Your task to perform on an android device: Search for a new water heater on Home Depot Image 0: 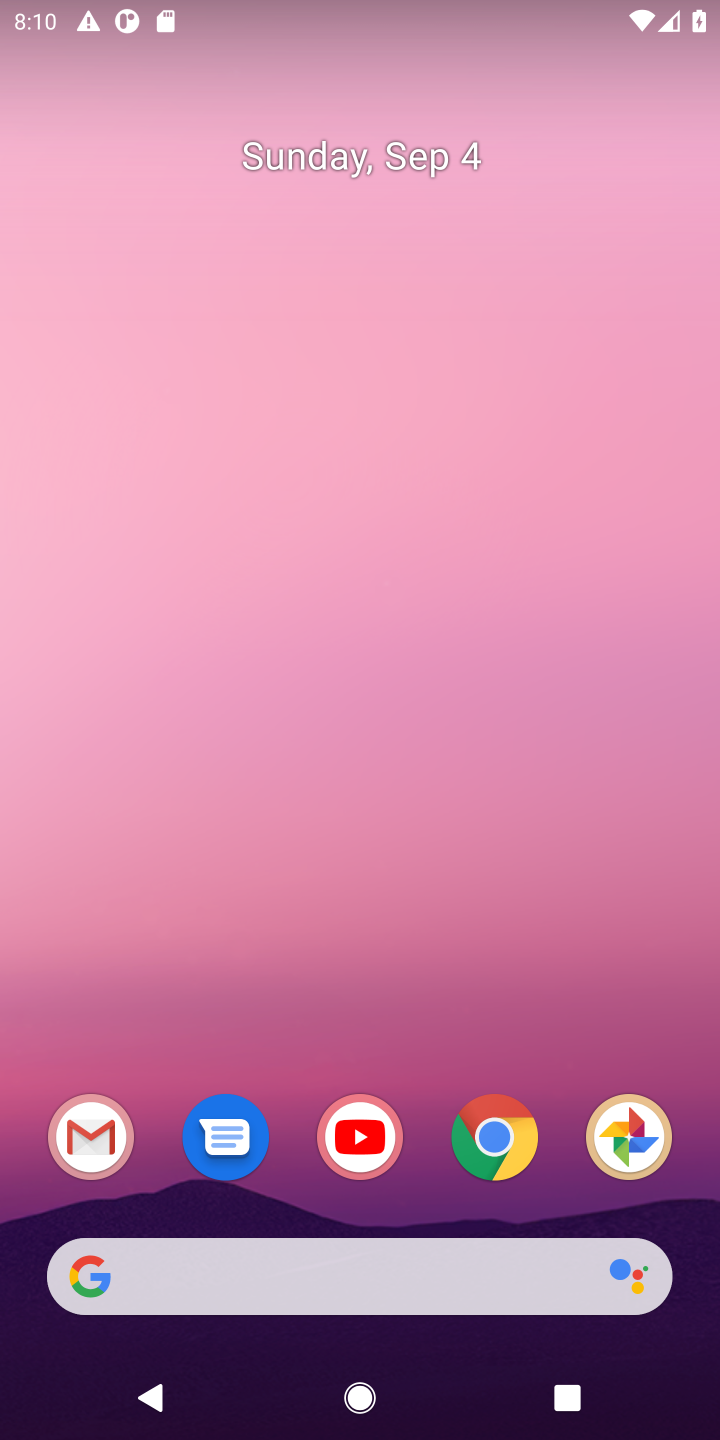
Step 0: click (495, 1138)
Your task to perform on an android device: Search for a new water heater on Home Depot Image 1: 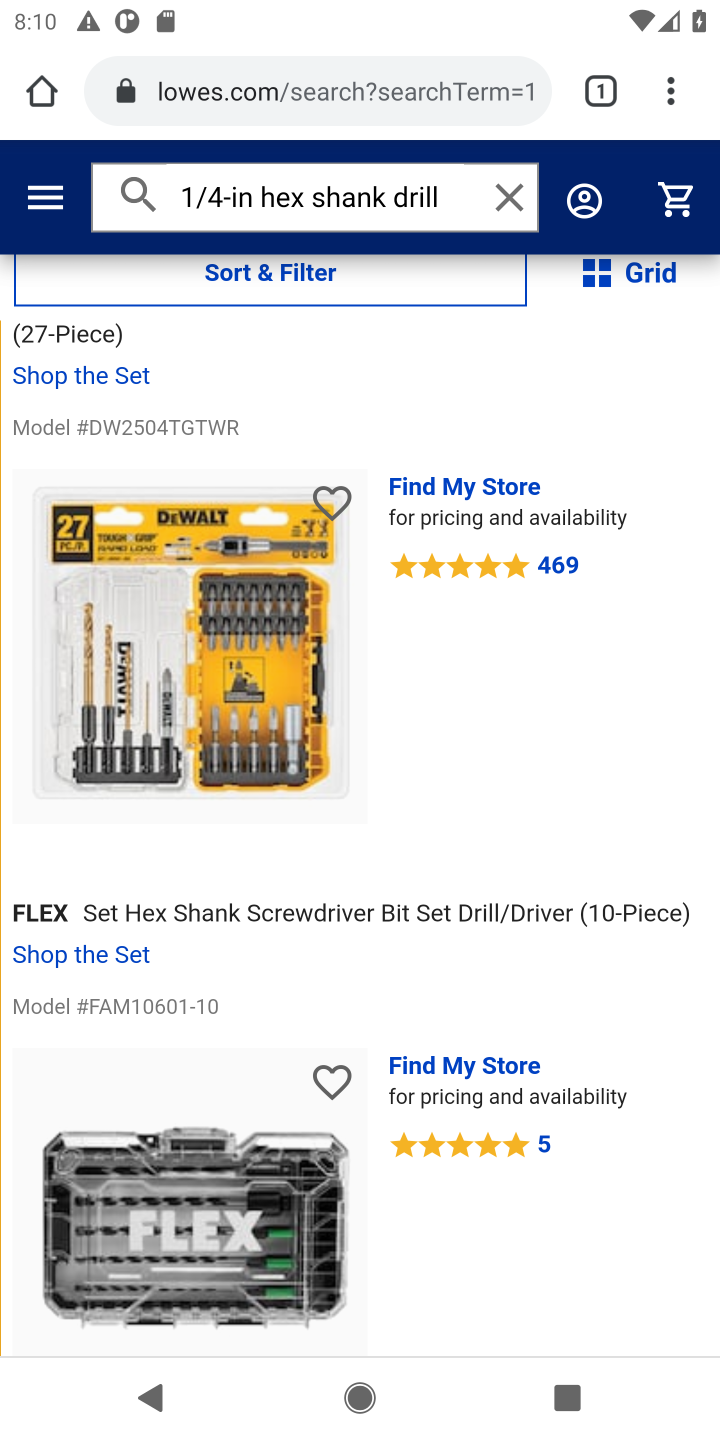
Step 1: click (371, 101)
Your task to perform on an android device: Search for a new water heater on Home Depot Image 2: 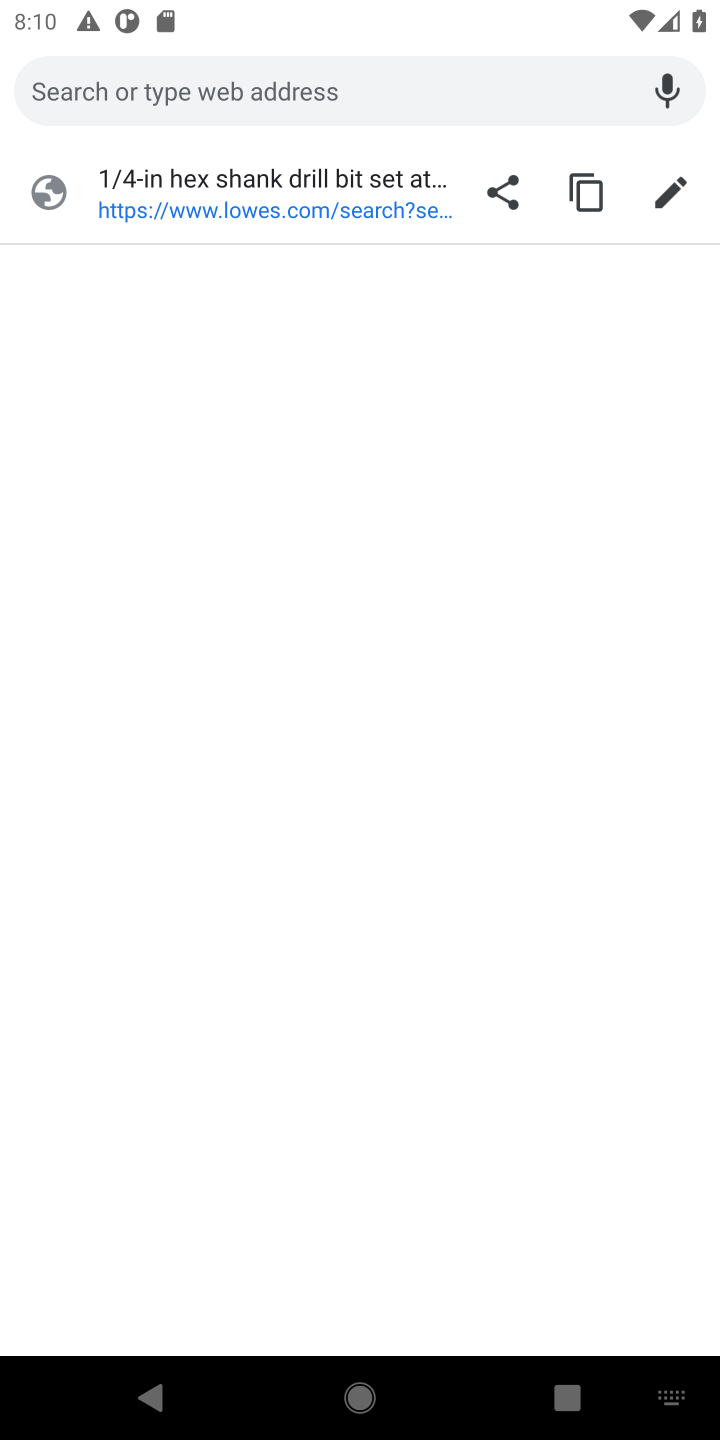
Step 2: type "Home Depot"
Your task to perform on an android device: Search for a new water heater on Home Depot Image 3: 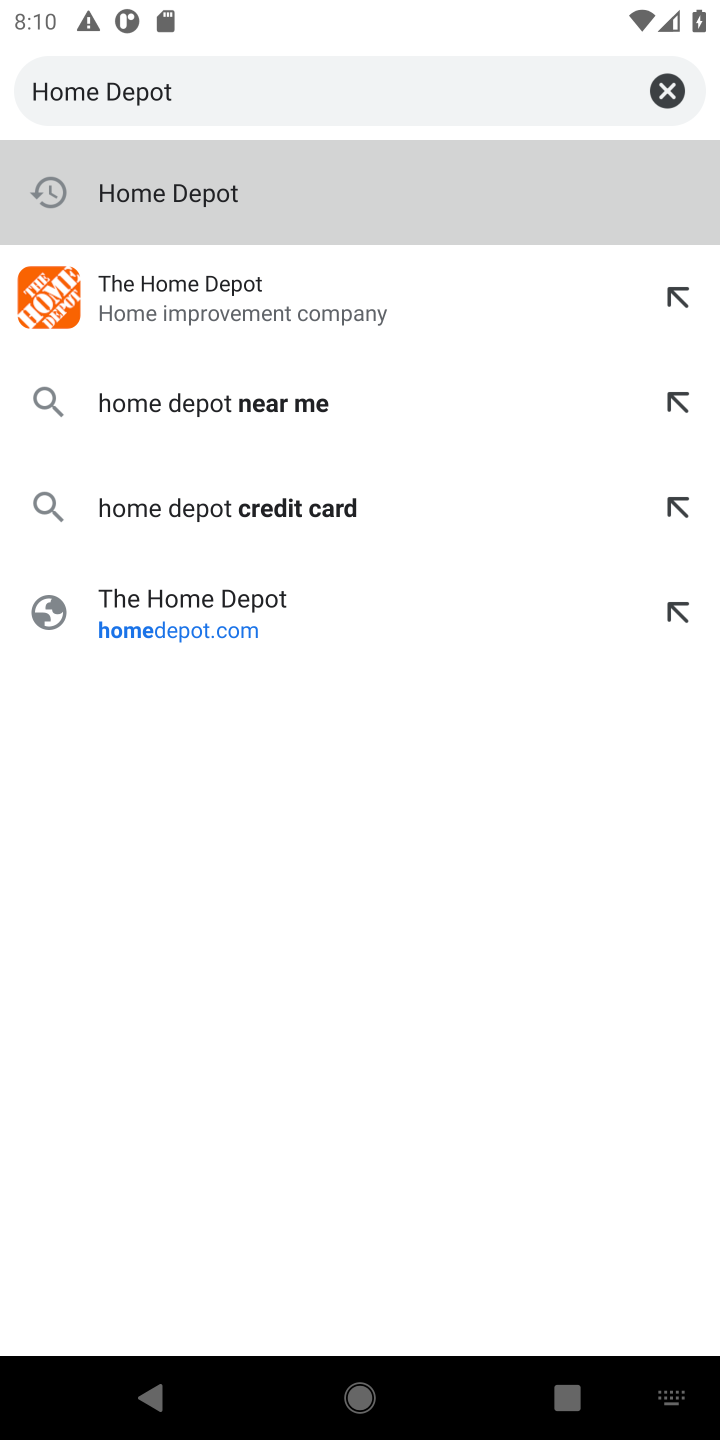
Step 3: click (217, 340)
Your task to perform on an android device: Search for a new water heater on Home Depot Image 4: 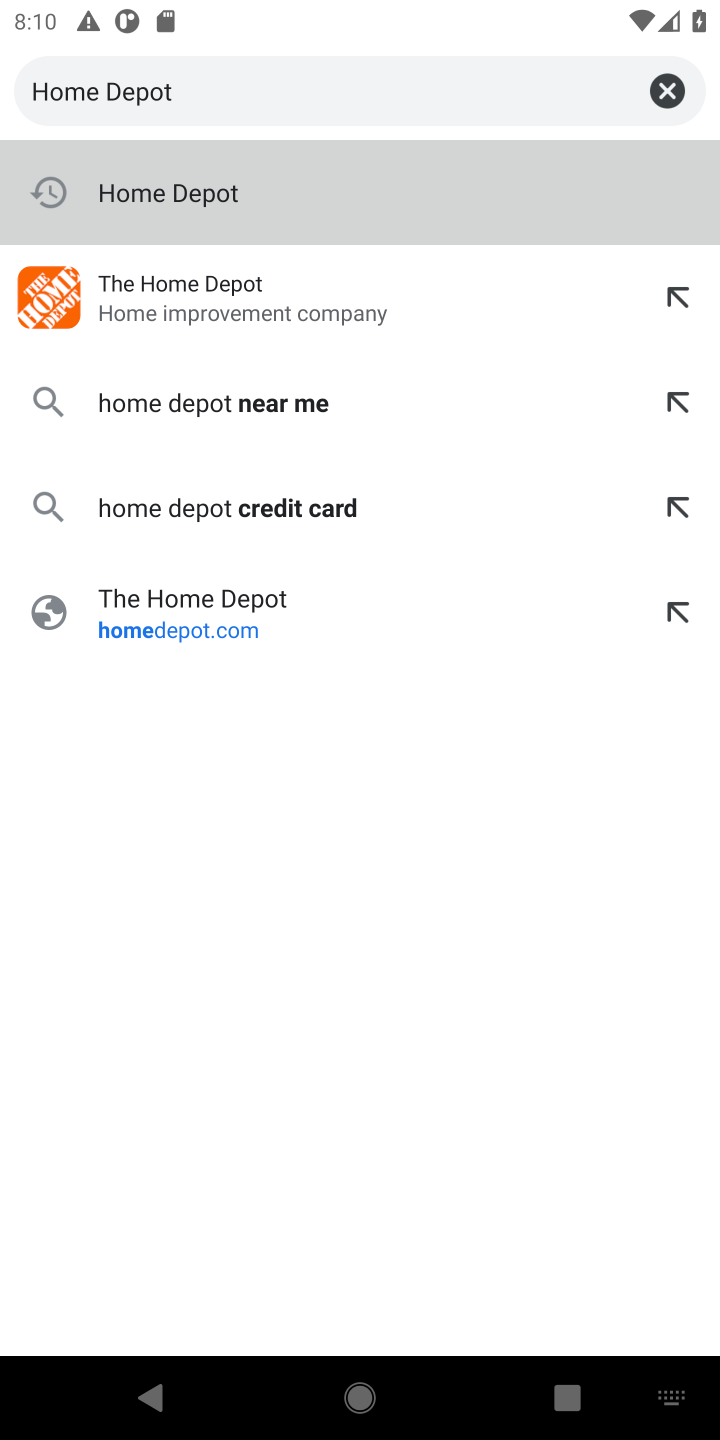
Step 4: click (188, 317)
Your task to perform on an android device: Search for a new water heater on Home Depot Image 5: 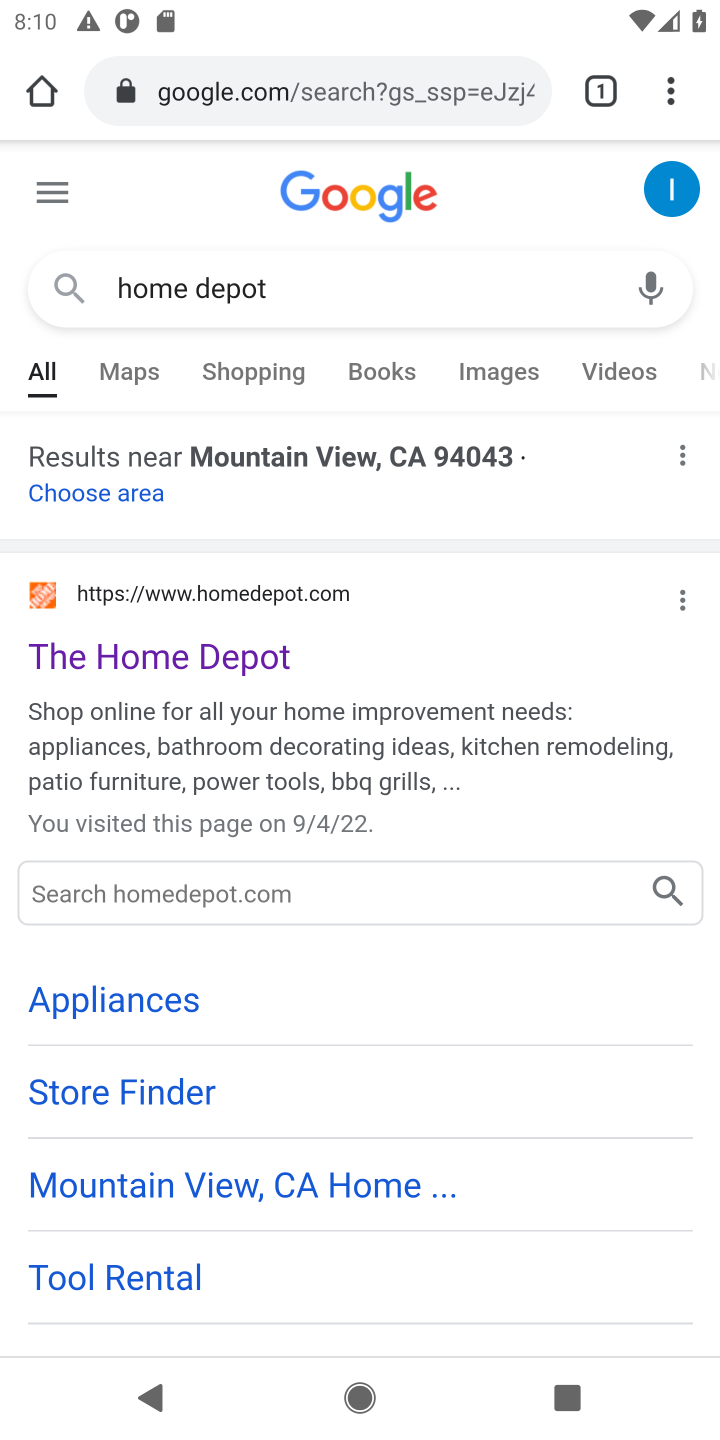
Step 5: click (156, 676)
Your task to perform on an android device: Search for a new water heater on Home Depot Image 6: 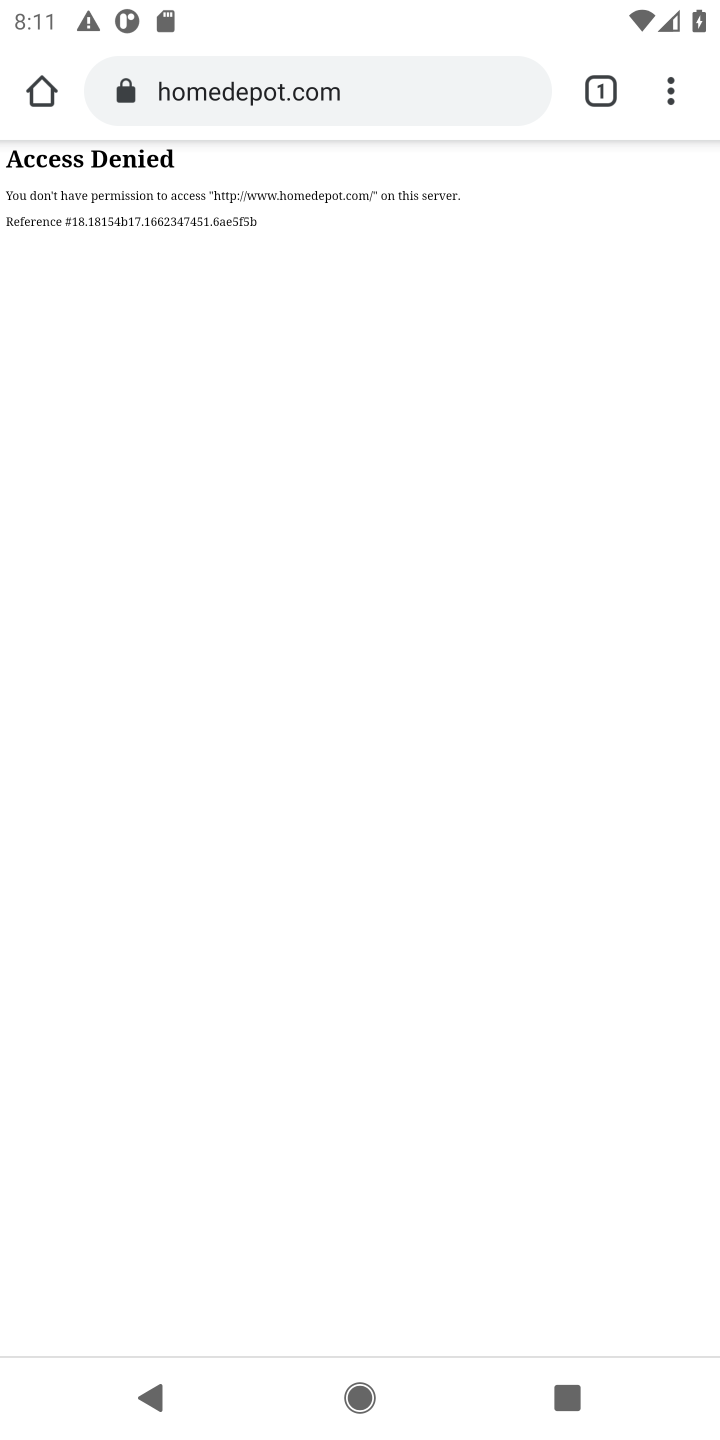
Step 6: task complete